Your task to perform on an android device: allow notifications from all sites in the chrome app Image 0: 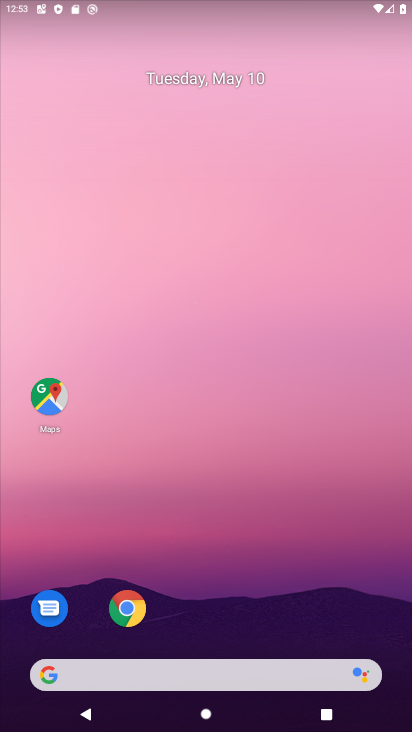
Step 0: drag from (209, 617) to (254, 178)
Your task to perform on an android device: allow notifications from all sites in the chrome app Image 1: 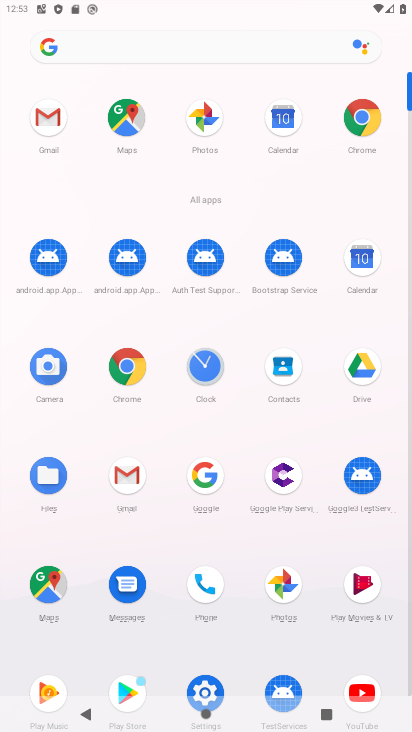
Step 1: click (370, 127)
Your task to perform on an android device: allow notifications from all sites in the chrome app Image 2: 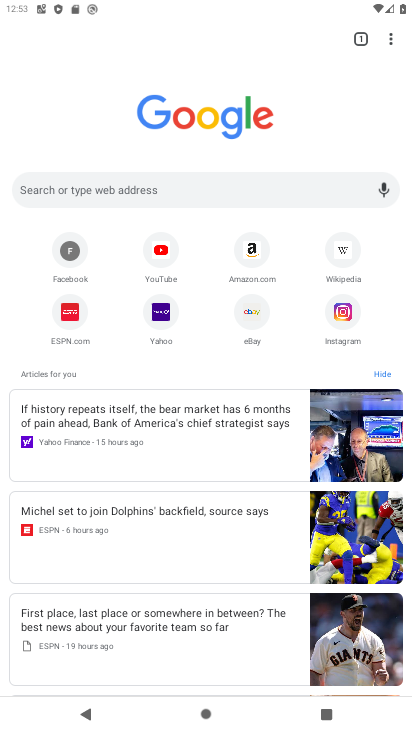
Step 2: drag from (393, 43) to (270, 327)
Your task to perform on an android device: allow notifications from all sites in the chrome app Image 3: 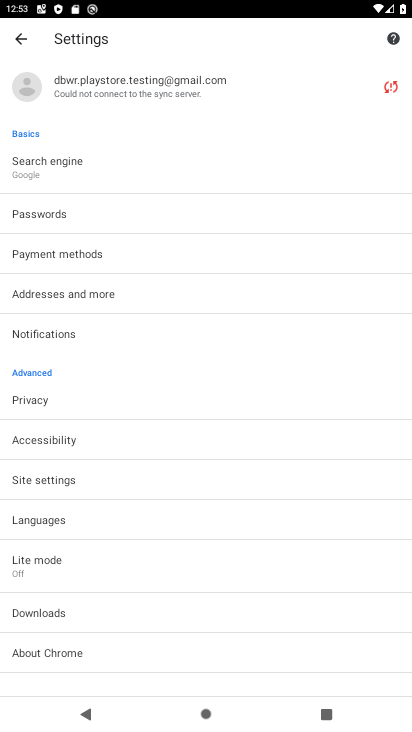
Step 3: click (100, 483)
Your task to perform on an android device: allow notifications from all sites in the chrome app Image 4: 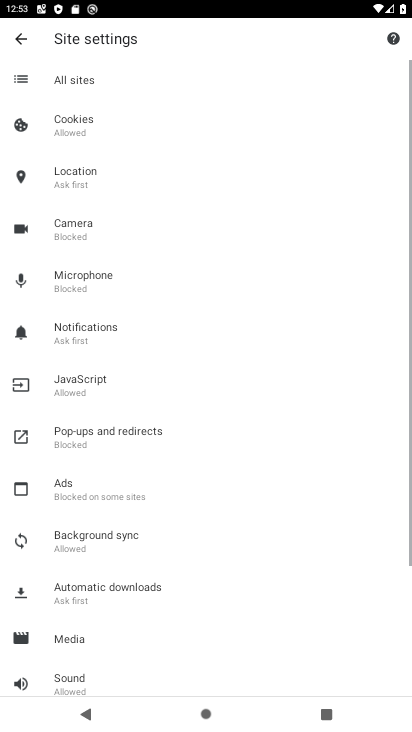
Step 4: click (145, 79)
Your task to perform on an android device: allow notifications from all sites in the chrome app Image 5: 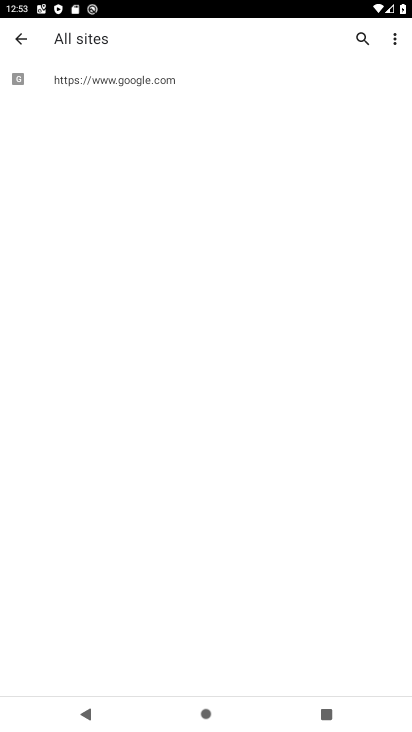
Step 5: click (153, 91)
Your task to perform on an android device: allow notifications from all sites in the chrome app Image 6: 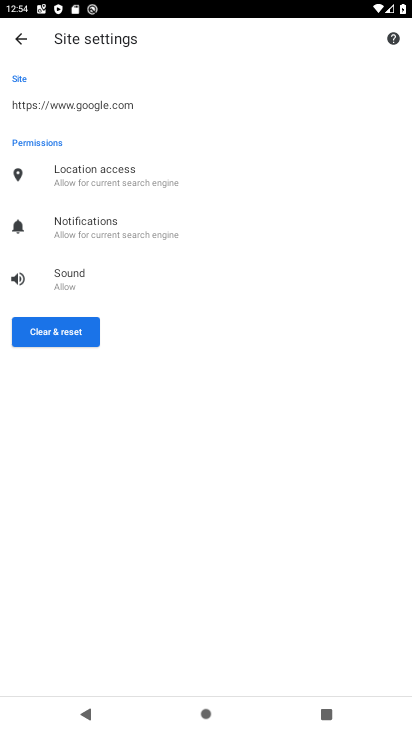
Step 6: task complete